Your task to perform on an android device: Search for pizza restaurants on Maps Image 0: 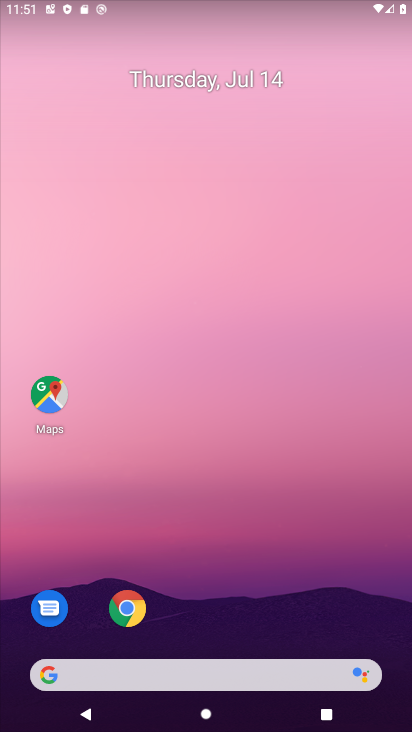
Step 0: drag from (204, 701) to (364, 139)
Your task to perform on an android device: Search for pizza restaurants on Maps Image 1: 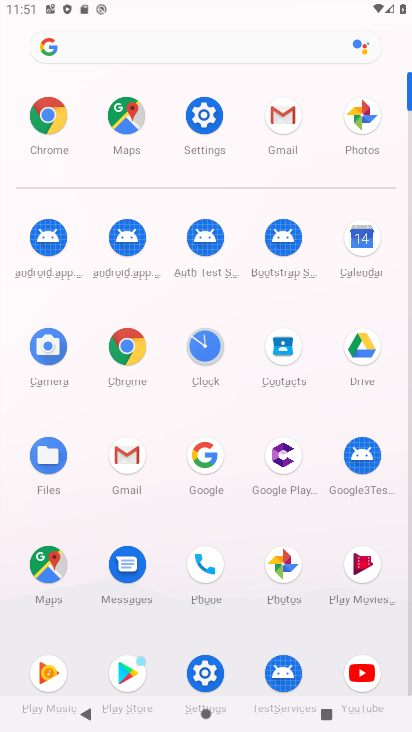
Step 1: click (51, 556)
Your task to perform on an android device: Search for pizza restaurants on Maps Image 2: 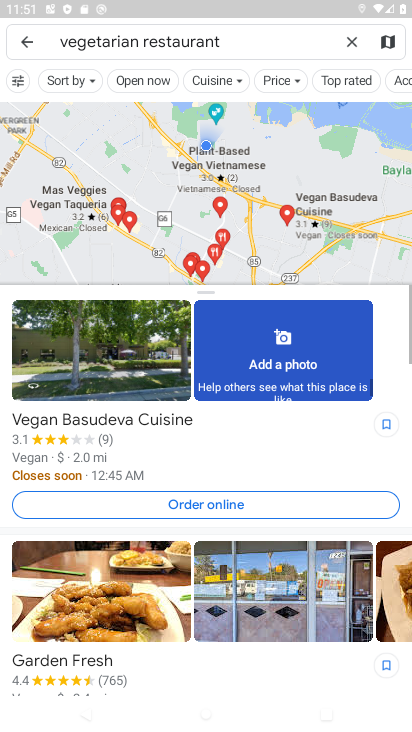
Step 2: press back button
Your task to perform on an android device: Search for pizza restaurants on Maps Image 3: 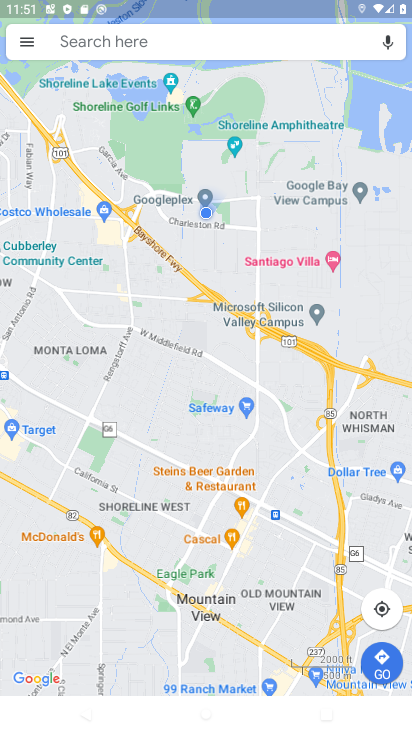
Step 3: click (280, 46)
Your task to perform on an android device: Search for pizza restaurants on Maps Image 4: 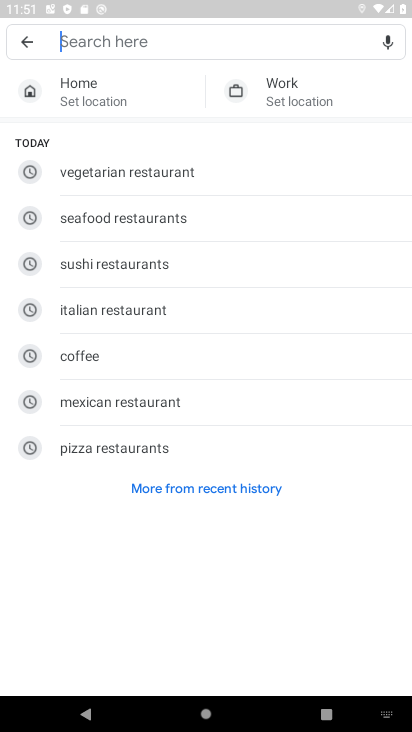
Step 4: click (118, 447)
Your task to perform on an android device: Search for pizza restaurants on Maps Image 5: 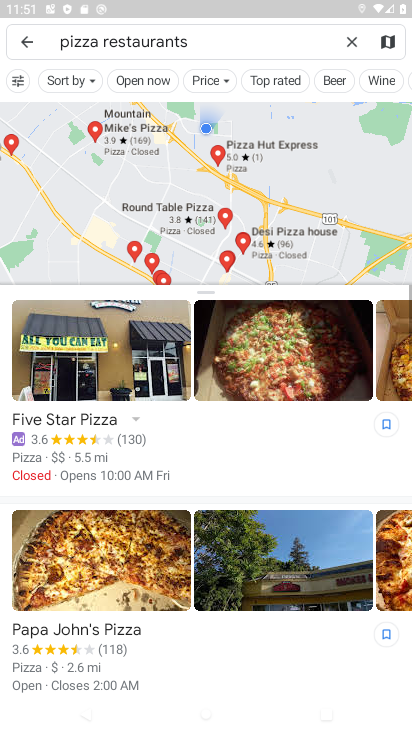
Step 5: task complete